Your task to perform on an android device: Play the last video I watched on Youtube Image 0: 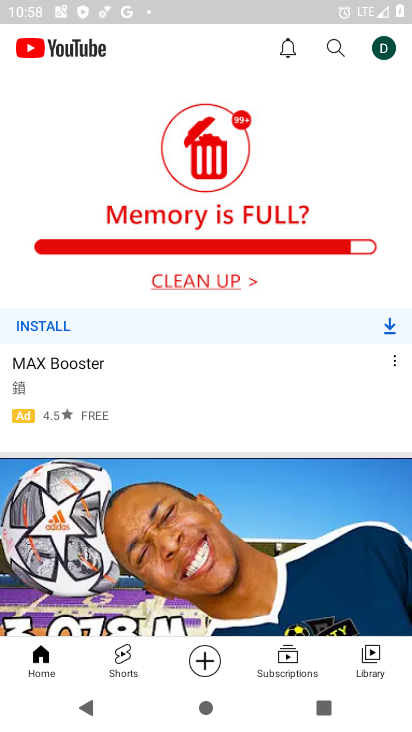
Step 0: click (363, 655)
Your task to perform on an android device: Play the last video I watched on Youtube Image 1: 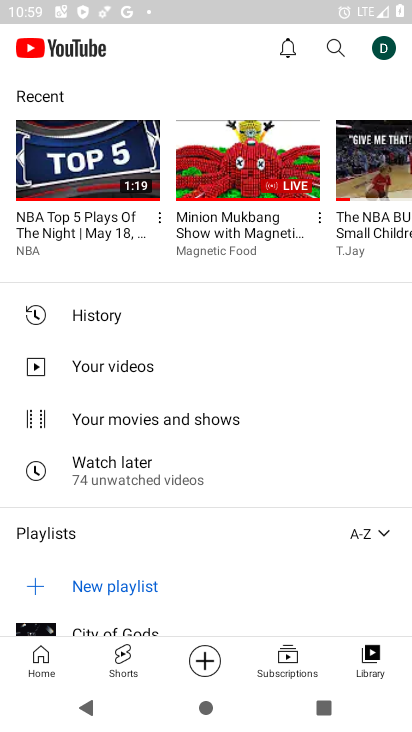
Step 1: click (102, 320)
Your task to perform on an android device: Play the last video I watched on Youtube Image 2: 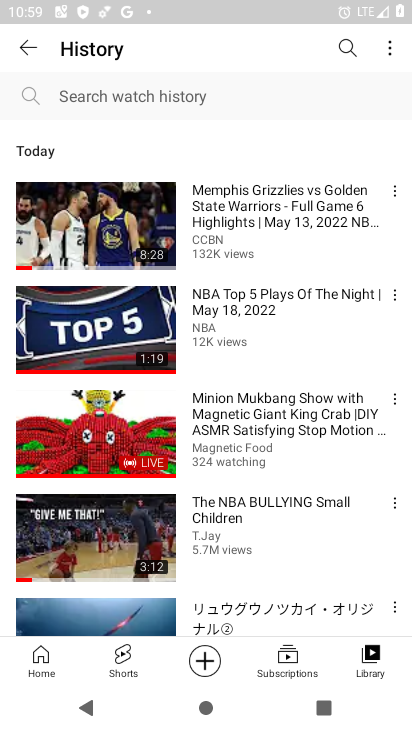
Step 2: click (114, 242)
Your task to perform on an android device: Play the last video I watched on Youtube Image 3: 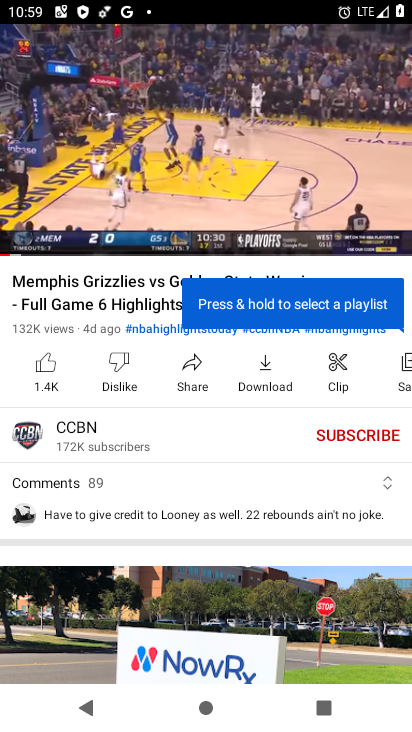
Step 3: task complete